Your task to perform on an android device: set default search engine in the chrome app Image 0: 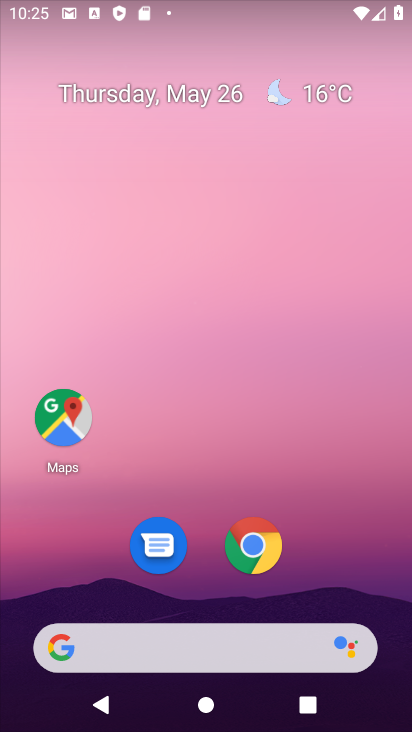
Step 0: press home button
Your task to perform on an android device: set default search engine in the chrome app Image 1: 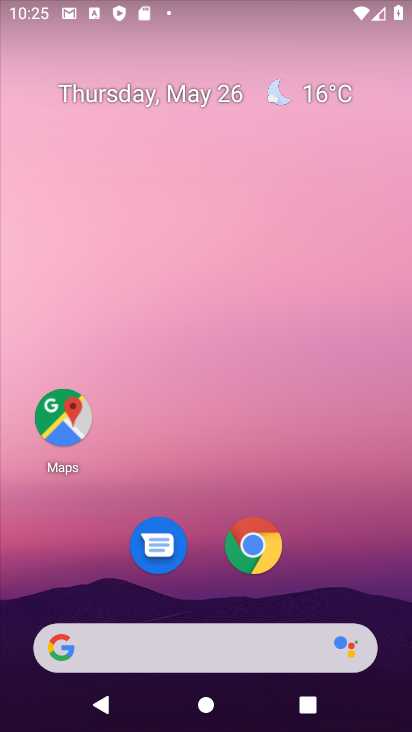
Step 1: click (253, 550)
Your task to perform on an android device: set default search engine in the chrome app Image 2: 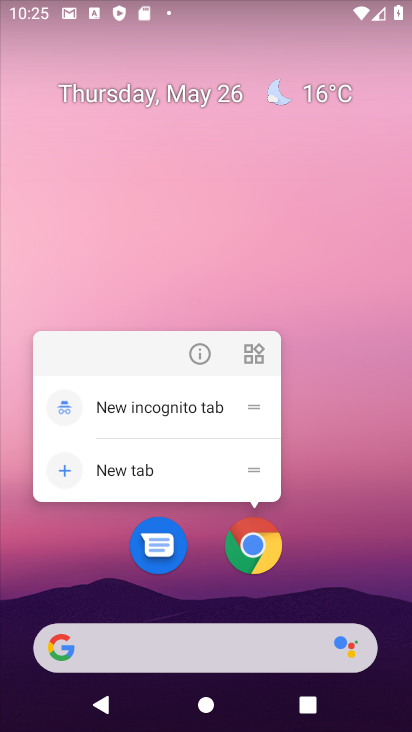
Step 2: click (347, 548)
Your task to perform on an android device: set default search engine in the chrome app Image 3: 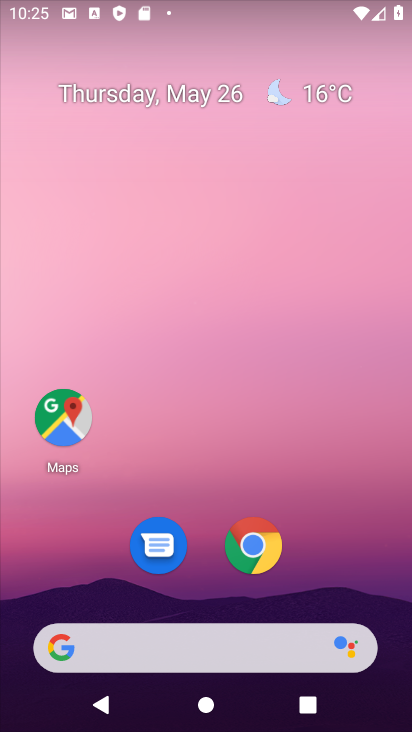
Step 3: drag from (319, 592) to (310, 97)
Your task to perform on an android device: set default search engine in the chrome app Image 4: 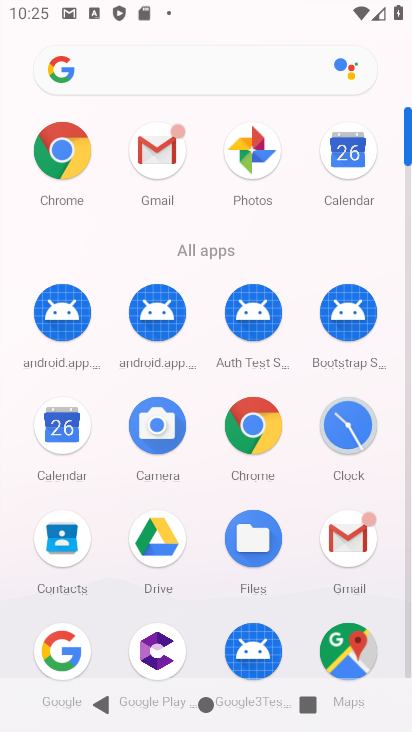
Step 4: click (69, 155)
Your task to perform on an android device: set default search engine in the chrome app Image 5: 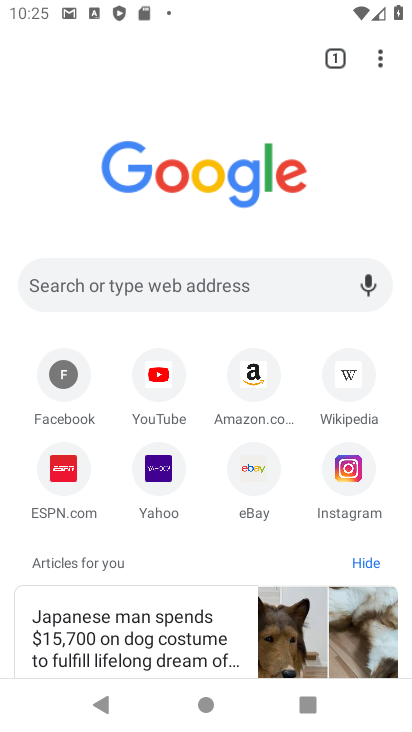
Step 5: drag from (384, 55) to (185, 487)
Your task to perform on an android device: set default search engine in the chrome app Image 6: 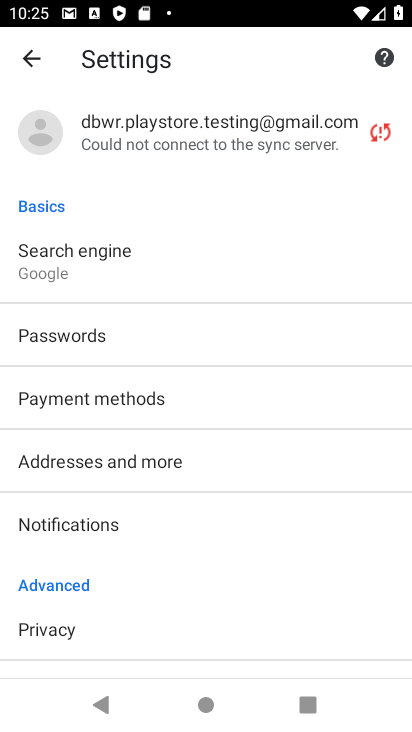
Step 6: click (40, 270)
Your task to perform on an android device: set default search engine in the chrome app Image 7: 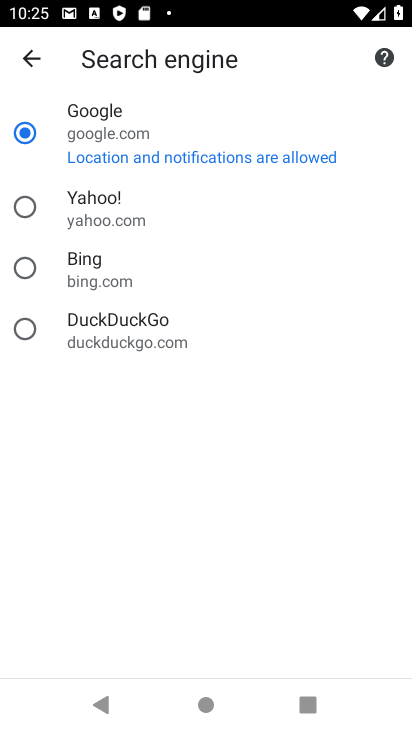
Step 7: click (29, 210)
Your task to perform on an android device: set default search engine in the chrome app Image 8: 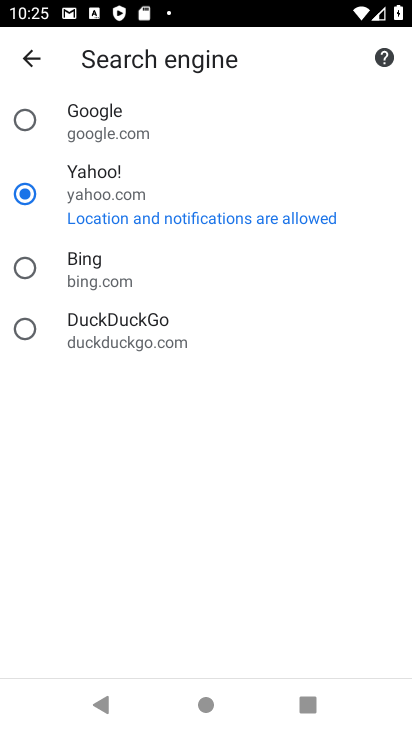
Step 8: task complete